Your task to perform on an android device: What's the latest news in space technology? Image 0: 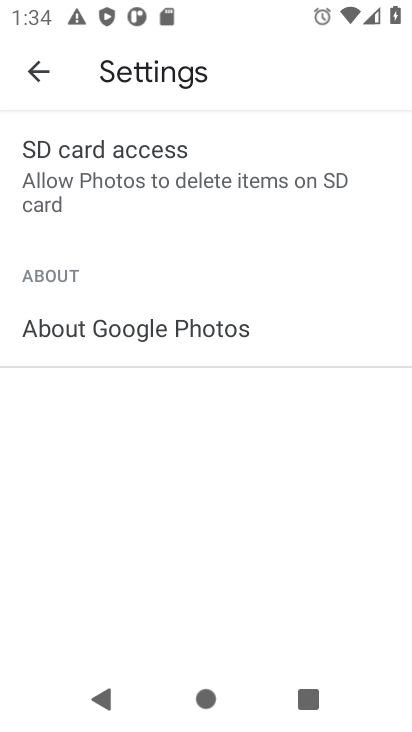
Step 0: press home button
Your task to perform on an android device: What's the latest news in space technology? Image 1: 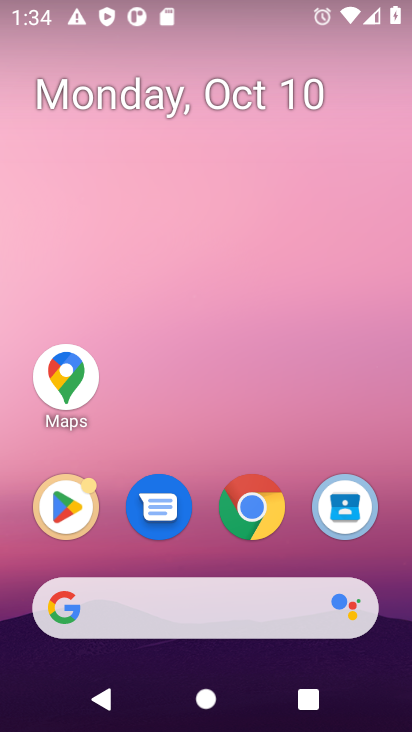
Step 1: click (203, 603)
Your task to perform on an android device: What's the latest news in space technology? Image 2: 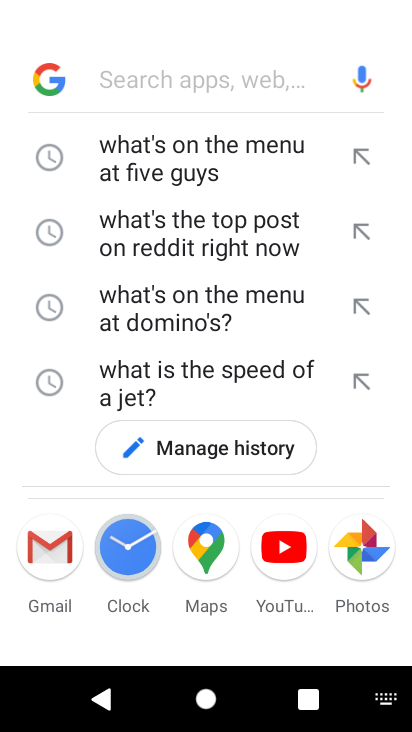
Step 2: type "What's the latest news in space technology?"
Your task to perform on an android device: What's the latest news in space technology? Image 3: 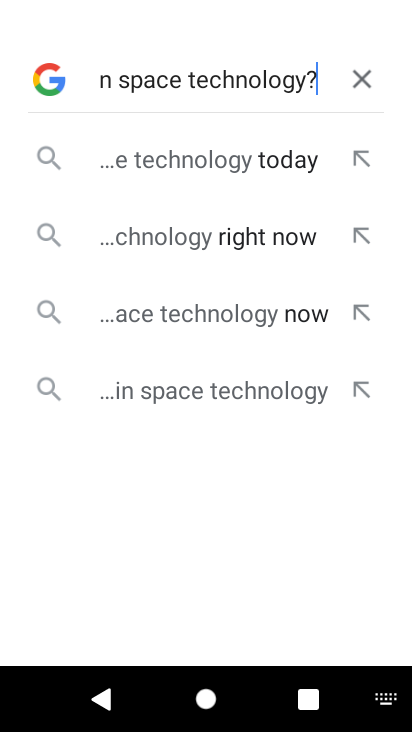
Step 3: press enter
Your task to perform on an android device: What's the latest news in space technology? Image 4: 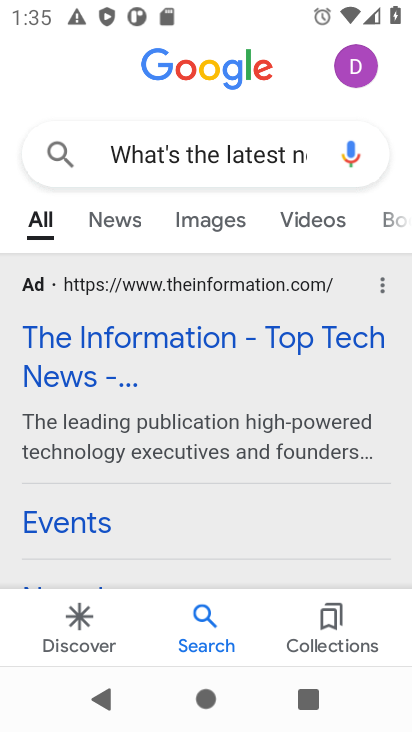
Step 4: drag from (260, 516) to (260, 376)
Your task to perform on an android device: What's the latest news in space technology? Image 5: 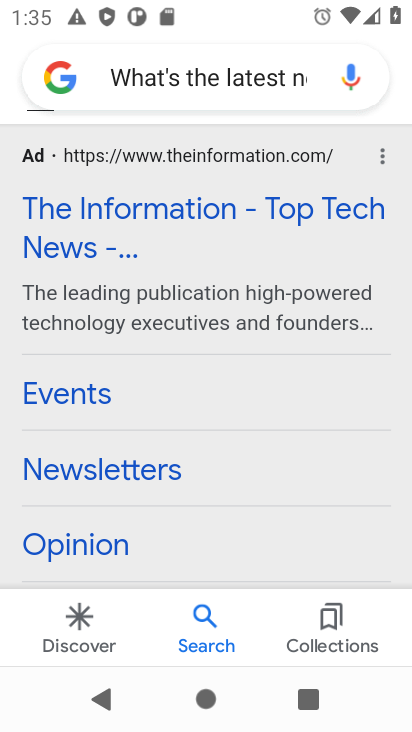
Step 5: drag from (268, 508) to (285, 287)
Your task to perform on an android device: What's the latest news in space technology? Image 6: 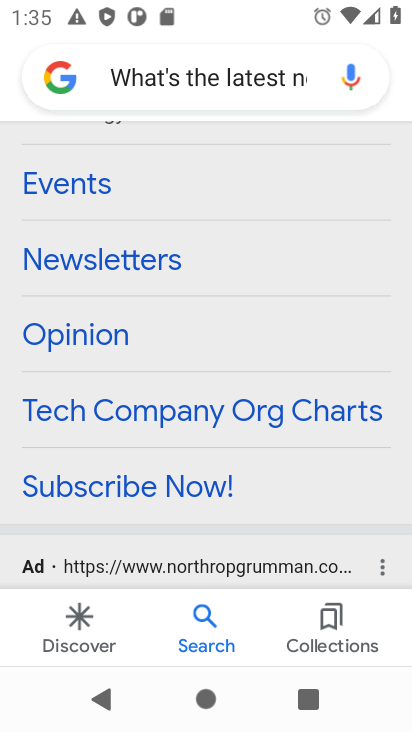
Step 6: drag from (245, 506) to (237, 207)
Your task to perform on an android device: What's the latest news in space technology? Image 7: 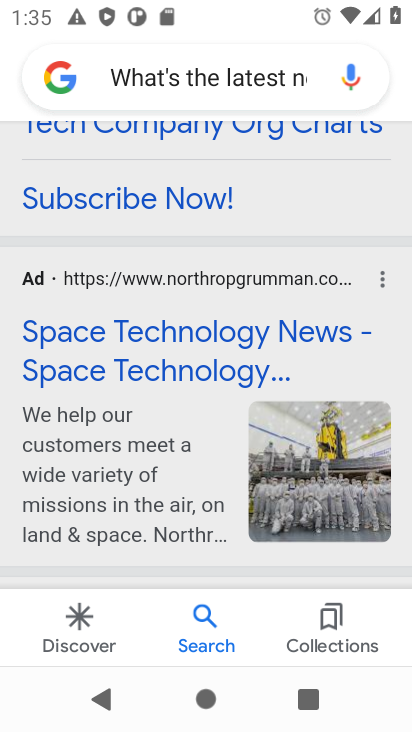
Step 7: click (229, 368)
Your task to perform on an android device: What's the latest news in space technology? Image 8: 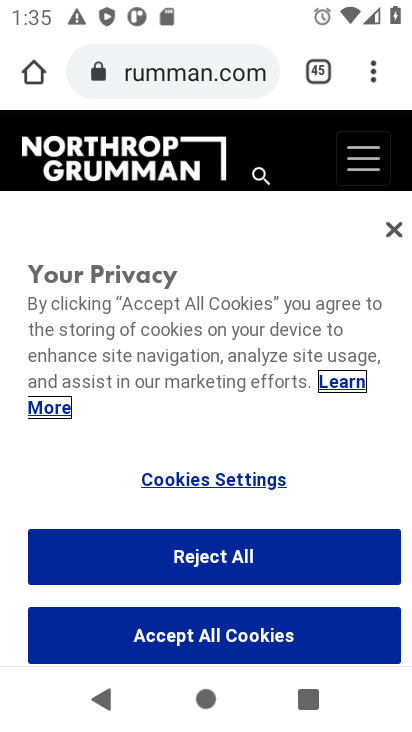
Step 8: click (257, 646)
Your task to perform on an android device: What's the latest news in space technology? Image 9: 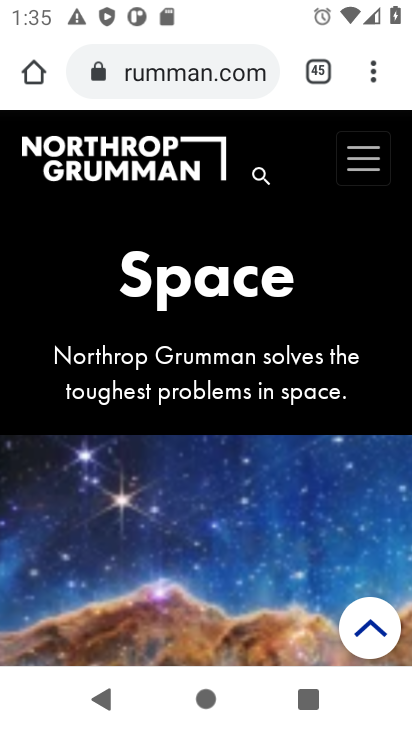
Step 9: task complete